Your task to perform on an android device: turn pop-ups on in chrome Image 0: 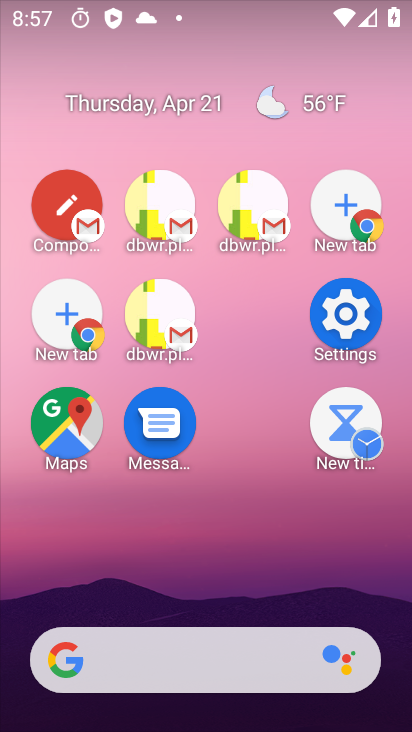
Step 0: drag from (300, 723) to (106, 87)
Your task to perform on an android device: turn pop-ups on in chrome Image 1: 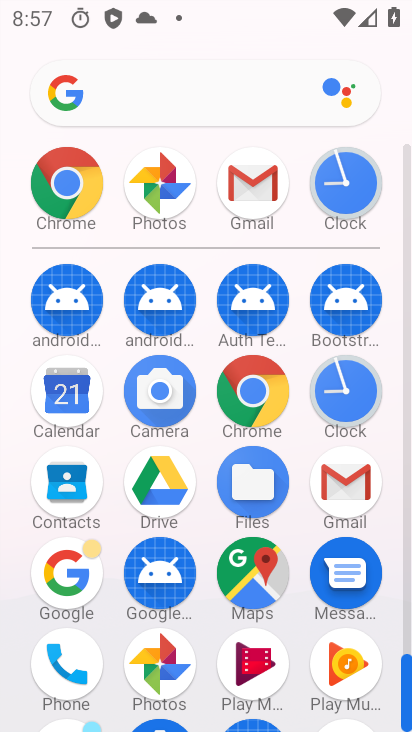
Step 1: click (252, 399)
Your task to perform on an android device: turn pop-ups on in chrome Image 2: 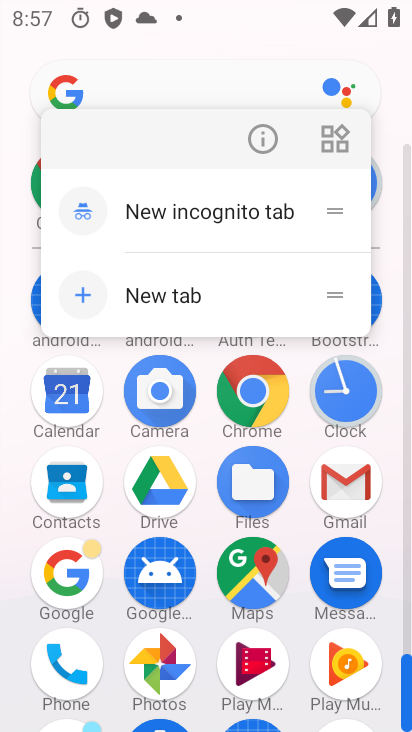
Step 2: click (254, 396)
Your task to perform on an android device: turn pop-ups on in chrome Image 3: 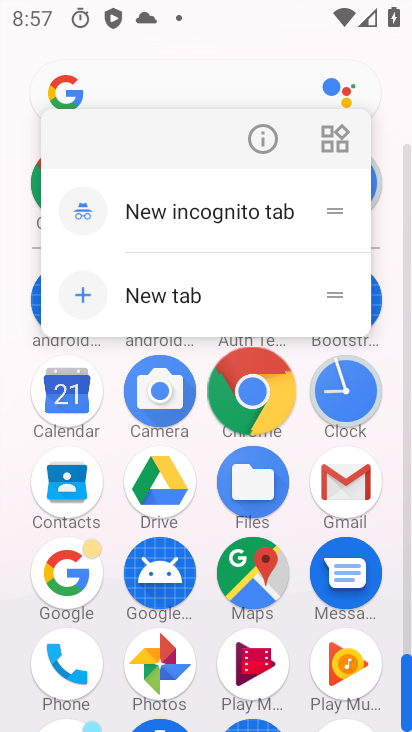
Step 3: click (254, 396)
Your task to perform on an android device: turn pop-ups on in chrome Image 4: 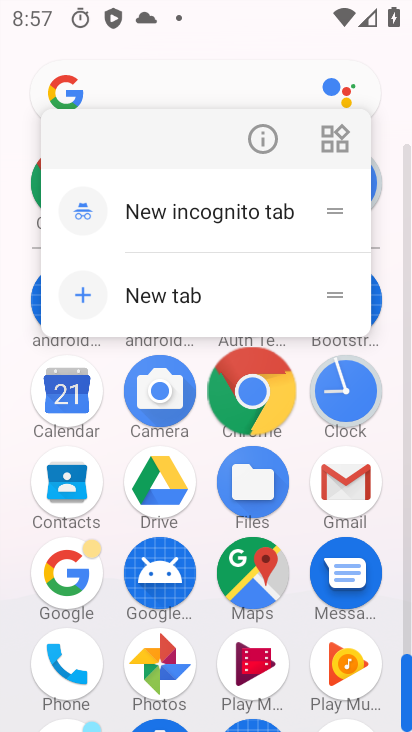
Step 4: click (258, 392)
Your task to perform on an android device: turn pop-ups on in chrome Image 5: 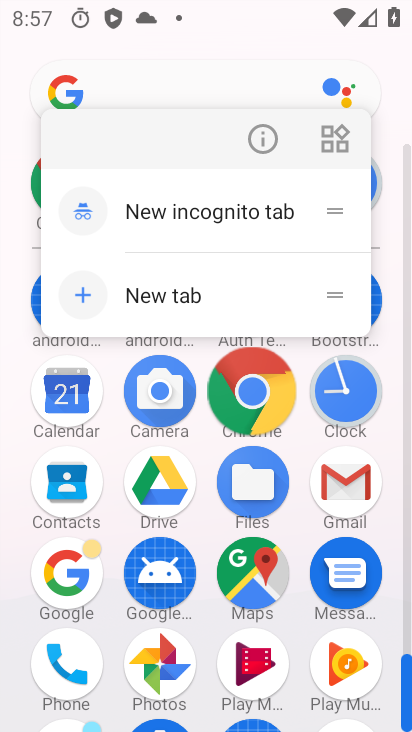
Step 5: click (266, 387)
Your task to perform on an android device: turn pop-ups on in chrome Image 6: 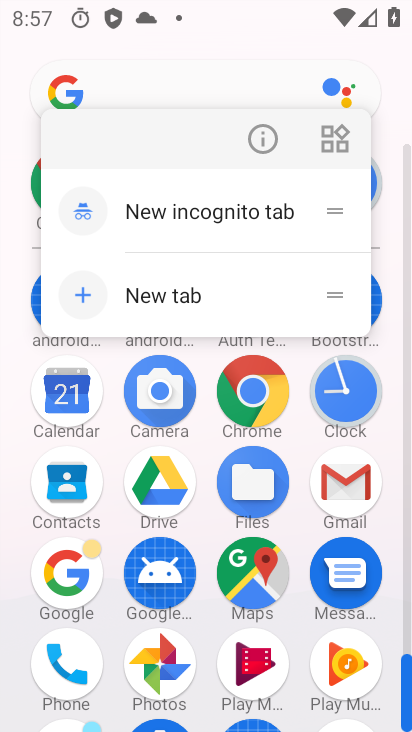
Step 6: click (267, 387)
Your task to perform on an android device: turn pop-ups on in chrome Image 7: 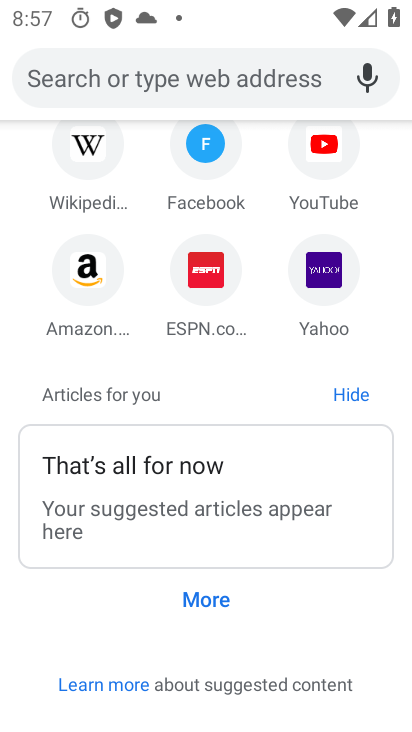
Step 7: drag from (247, 278) to (374, 617)
Your task to perform on an android device: turn pop-ups on in chrome Image 8: 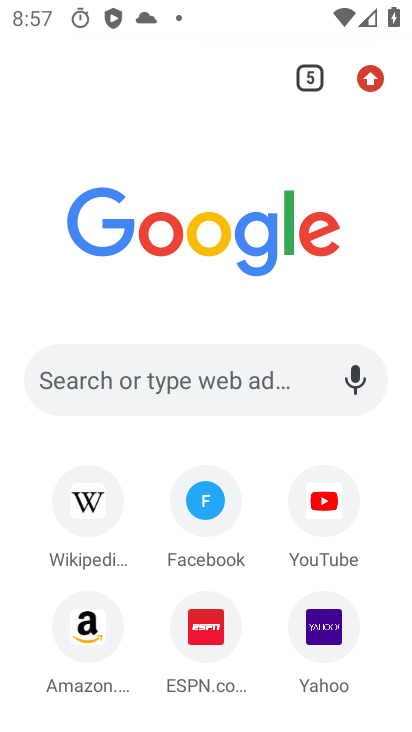
Step 8: drag from (289, 170) to (341, 529)
Your task to perform on an android device: turn pop-ups on in chrome Image 9: 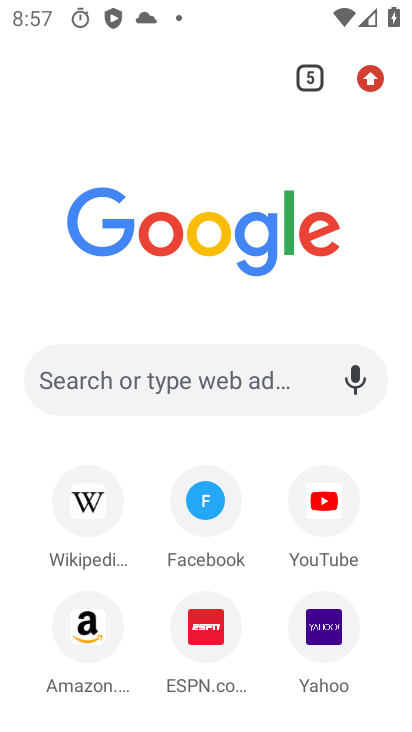
Step 9: drag from (365, 70) to (98, 614)
Your task to perform on an android device: turn pop-ups on in chrome Image 10: 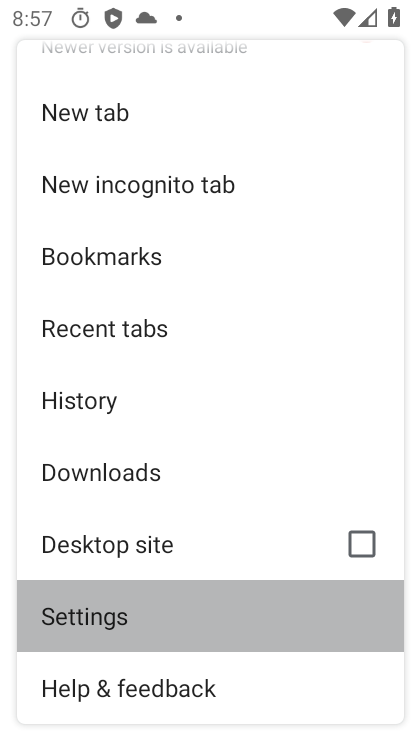
Step 10: click (91, 614)
Your task to perform on an android device: turn pop-ups on in chrome Image 11: 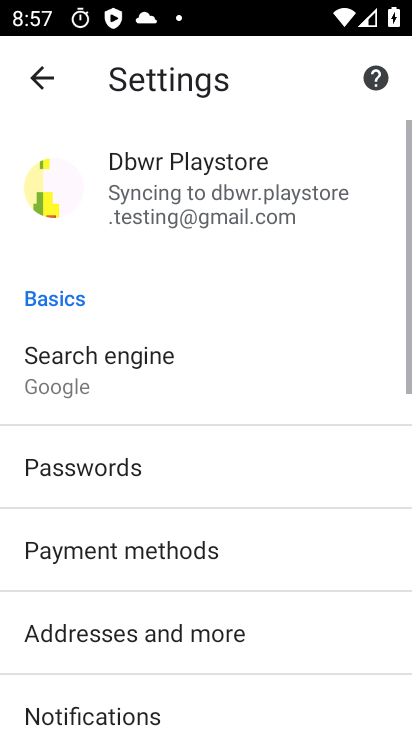
Step 11: drag from (101, 645) to (140, 343)
Your task to perform on an android device: turn pop-ups on in chrome Image 12: 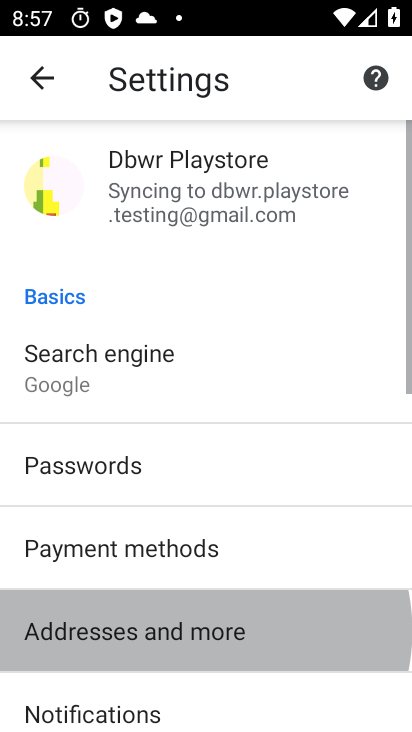
Step 12: drag from (212, 604) to (164, 163)
Your task to perform on an android device: turn pop-ups on in chrome Image 13: 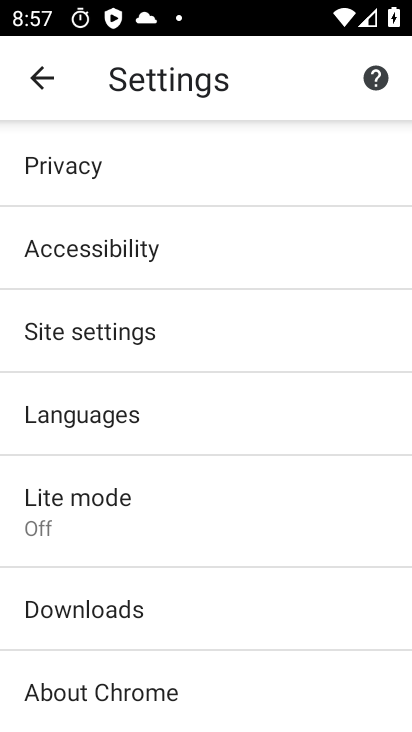
Step 13: click (76, 332)
Your task to perform on an android device: turn pop-ups on in chrome Image 14: 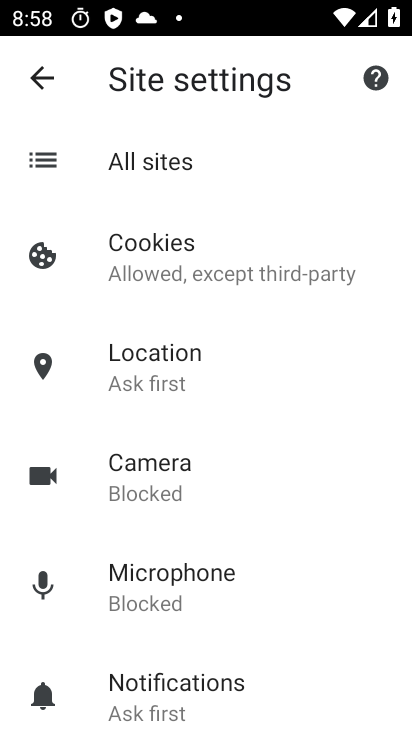
Step 14: drag from (188, 354) to (188, 208)
Your task to perform on an android device: turn pop-ups on in chrome Image 15: 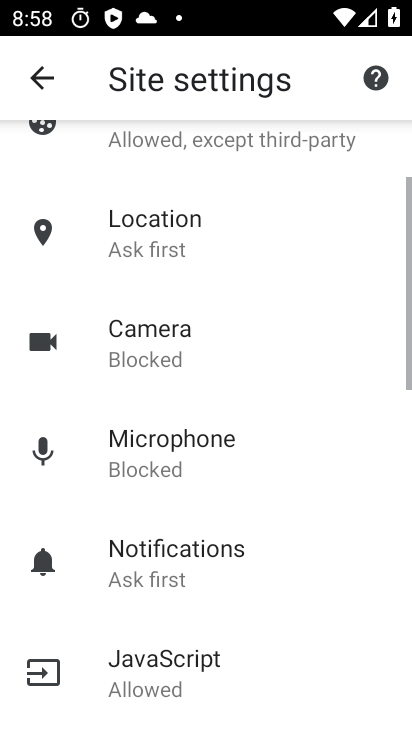
Step 15: drag from (196, 394) to (207, 81)
Your task to perform on an android device: turn pop-ups on in chrome Image 16: 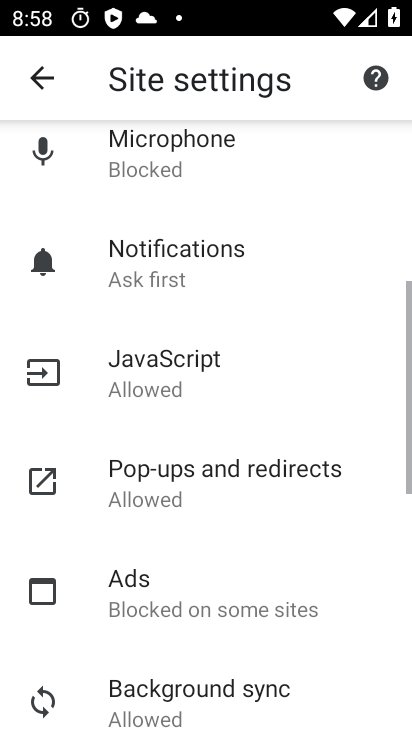
Step 16: drag from (244, 249) to (244, 111)
Your task to perform on an android device: turn pop-ups on in chrome Image 17: 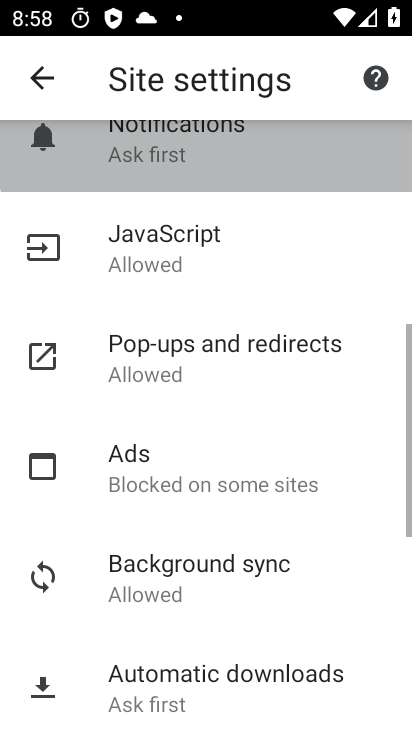
Step 17: drag from (224, 479) to (197, 147)
Your task to perform on an android device: turn pop-ups on in chrome Image 18: 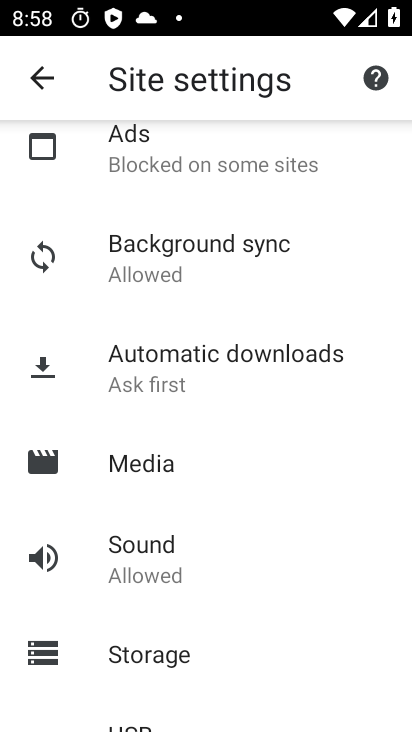
Step 18: drag from (171, 329) to (192, 561)
Your task to perform on an android device: turn pop-ups on in chrome Image 19: 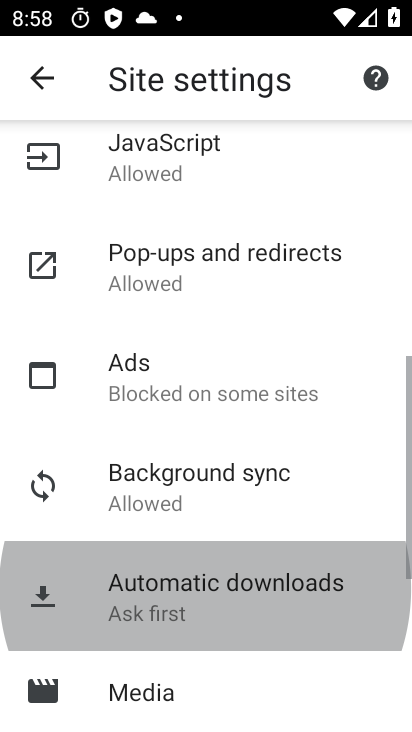
Step 19: drag from (215, 400) to (237, 549)
Your task to perform on an android device: turn pop-ups on in chrome Image 20: 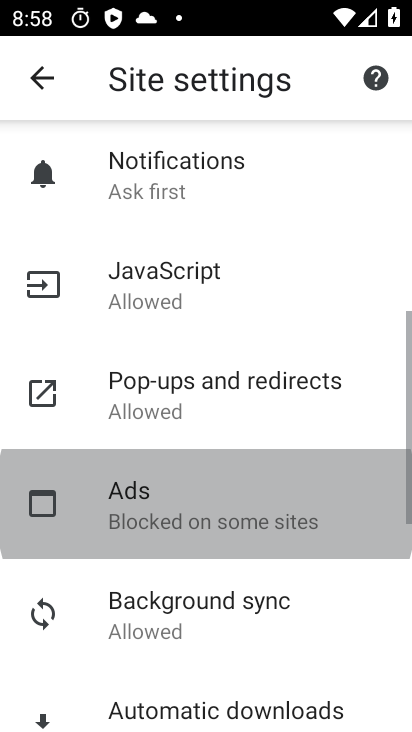
Step 20: drag from (196, 245) to (220, 518)
Your task to perform on an android device: turn pop-ups on in chrome Image 21: 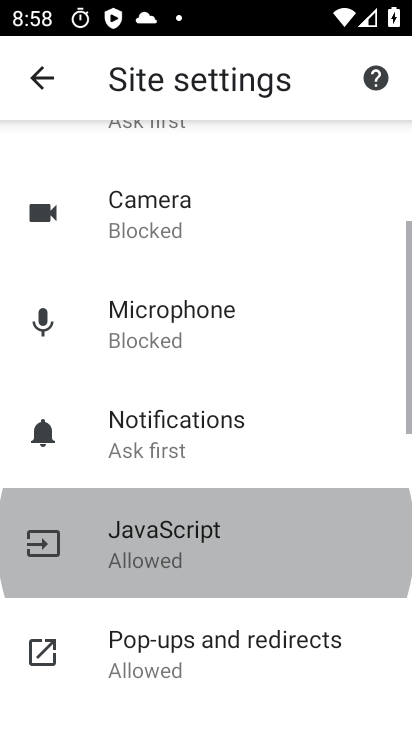
Step 21: drag from (148, 256) to (222, 597)
Your task to perform on an android device: turn pop-ups on in chrome Image 22: 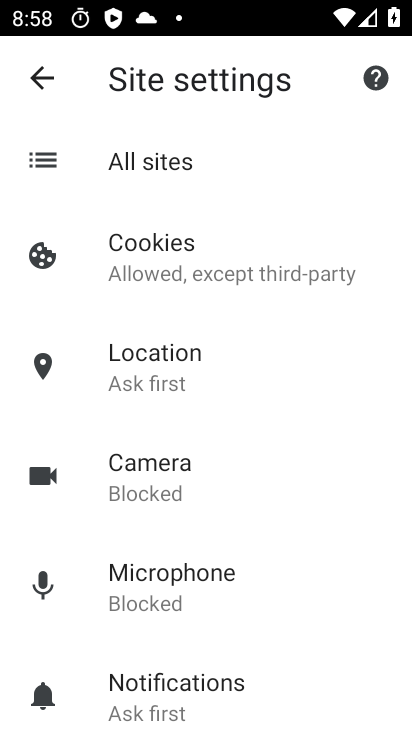
Step 22: drag from (232, 465) to (252, 251)
Your task to perform on an android device: turn pop-ups on in chrome Image 23: 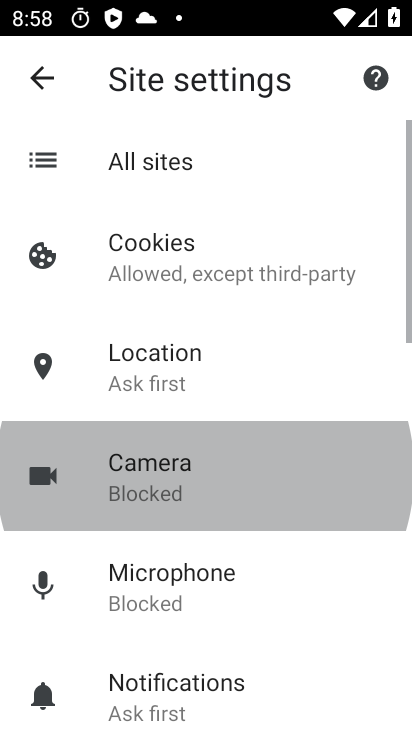
Step 23: drag from (193, 509) to (186, 188)
Your task to perform on an android device: turn pop-ups on in chrome Image 24: 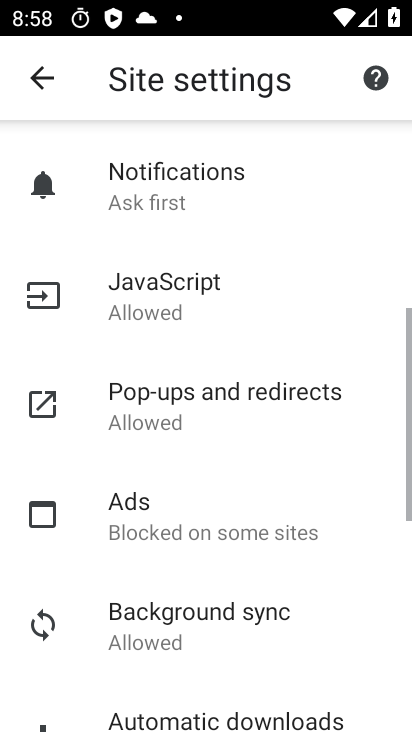
Step 24: drag from (187, 436) to (155, 143)
Your task to perform on an android device: turn pop-ups on in chrome Image 25: 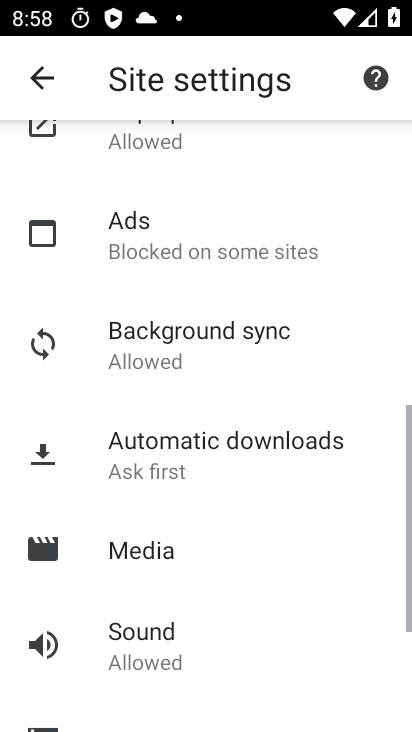
Step 25: click (184, 543)
Your task to perform on an android device: turn pop-ups on in chrome Image 26: 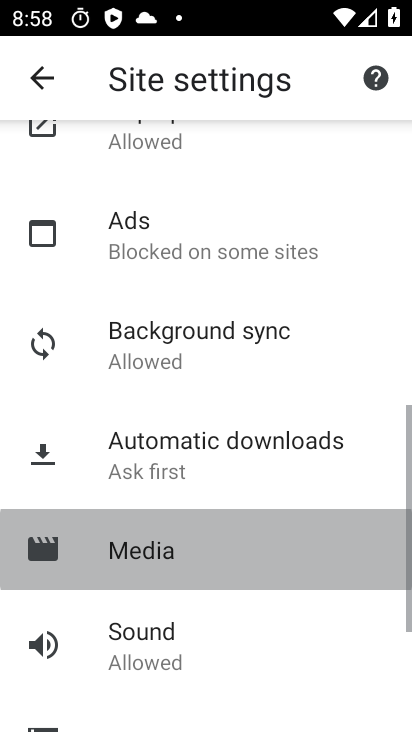
Step 26: click (232, 636)
Your task to perform on an android device: turn pop-ups on in chrome Image 27: 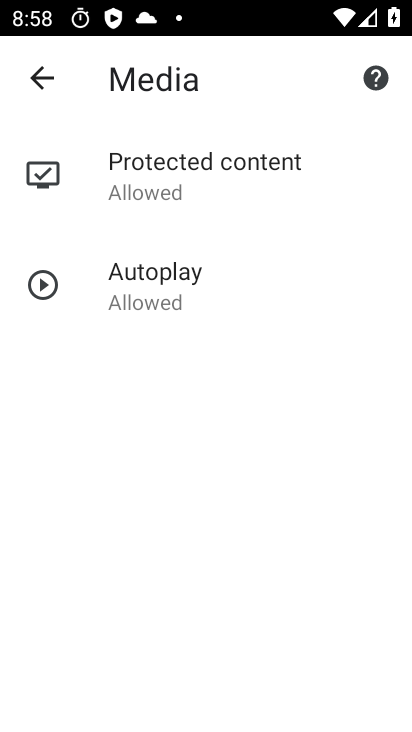
Step 27: click (34, 75)
Your task to perform on an android device: turn pop-ups on in chrome Image 28: 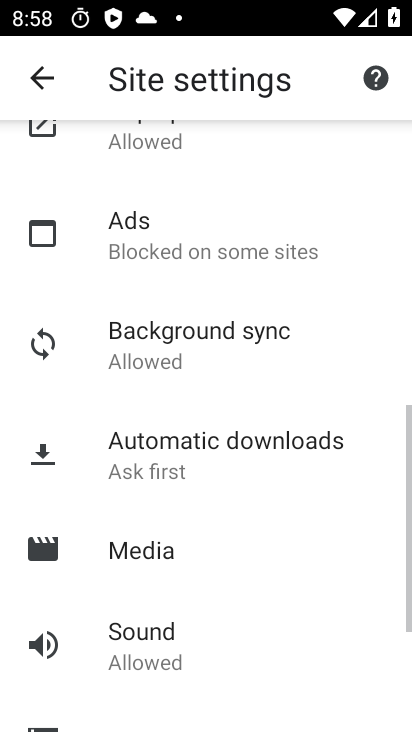
Step 28: click (186, 395)
Your task to perform on an android device: turn pop-ups on in chrome Image 29: 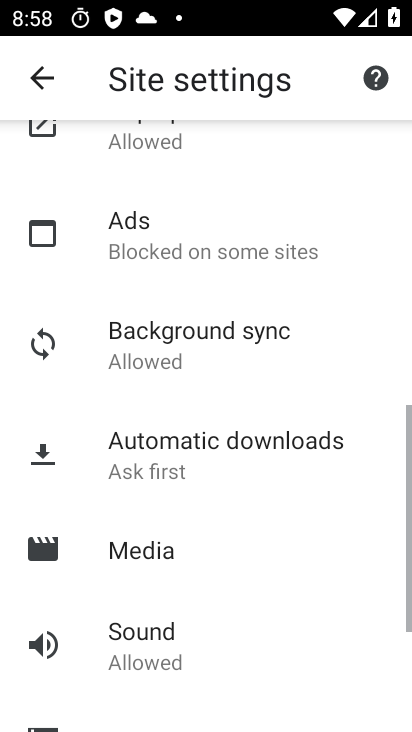
Step 29: drag from (221, 487) to (273, 500)
Your task to perform on an android device: turn pop-ups on in chrome Image 30: 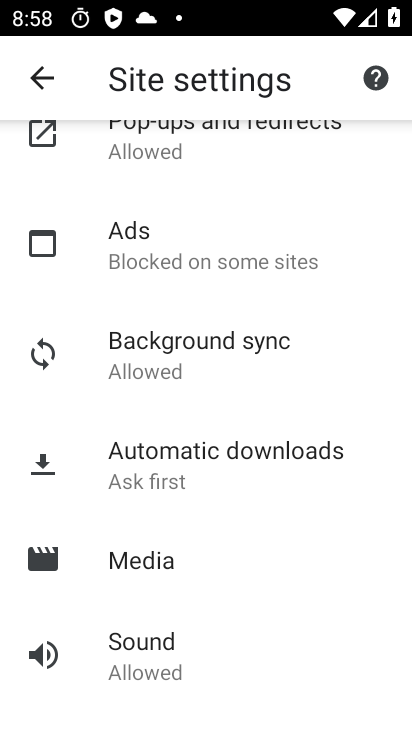
Step 30: drag from (191, 449) to (184, 319)
Your task to perform on an android device: turn pop-ups on in chrome Image 31: 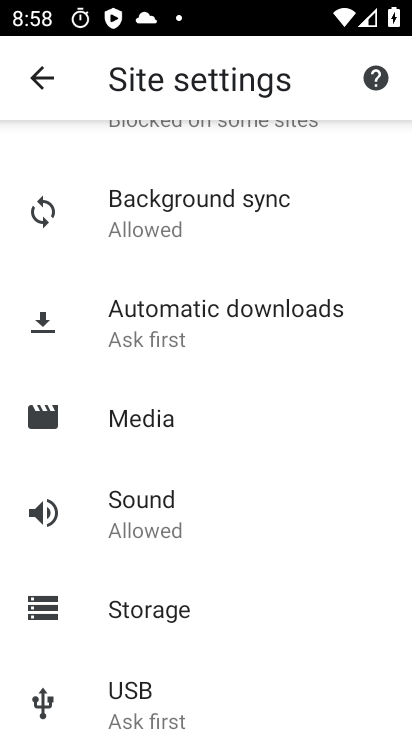
Step 31: drag from (150, 589) to (164, 103)
Your task to perform on an android device: turn pop-ups on in chrome Image 32: 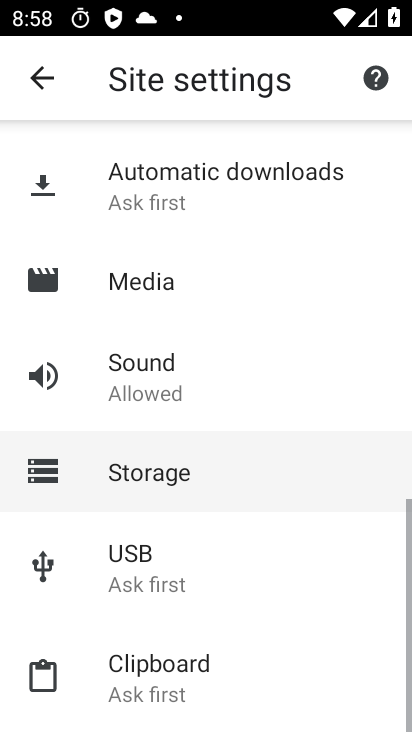
Step 32: drag from (193, 489) to (212, 132)
Your task to perform on an android device: turn pop-ups on in chrome Image 33: 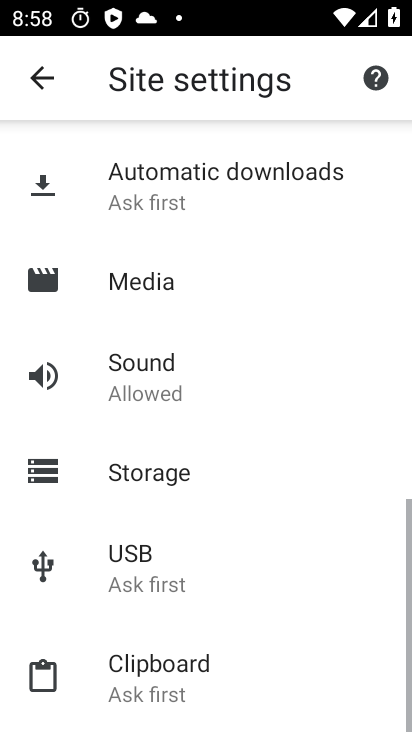
Step 33: drag from (195, 566) to (201, 620)
Your task to perform on an android device: turn pop-ups on in chrome Image 34: 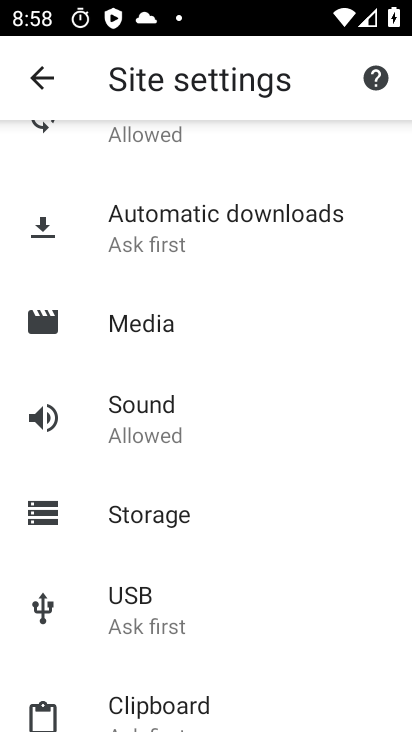
Step 34: drag from (211, 473) to (213, 553)
Your task to perform on an android device: turn pop-ups on in chrome Image 35: 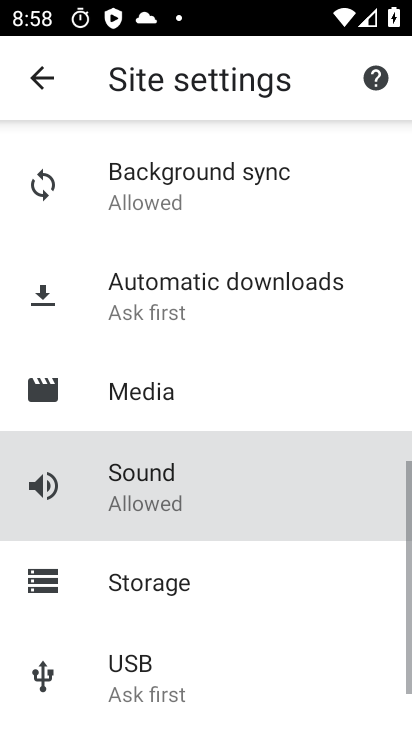
Step 35: drag from (183, 490) to (284, 606)
Your task to perform on an android device: turn pop-ups on in chrome Image 36: 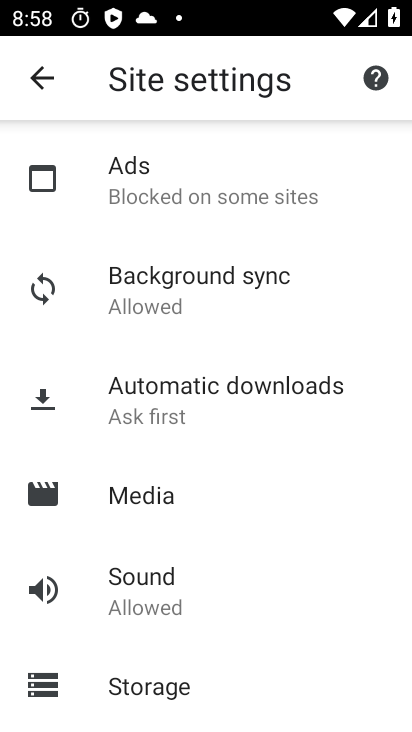
Step 36: drag from (203, 370) to (217, 509)
Your task to perform on an android device: turn pop-ups on in chrome Image 37: 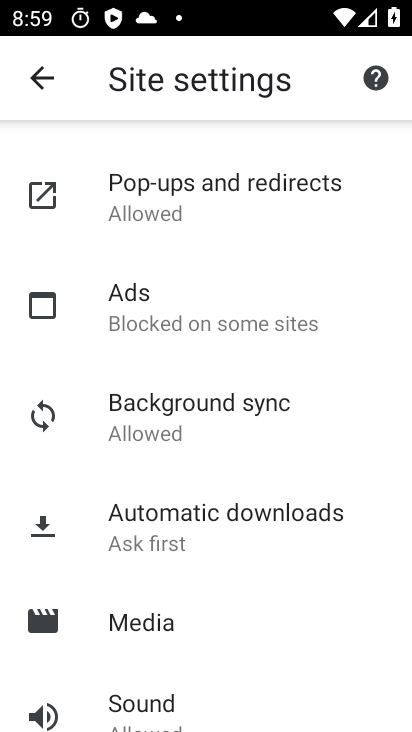
Step 37: click (176, 192)
Your task to perform on an android device: turn pop-ups on in chrome Image 38: 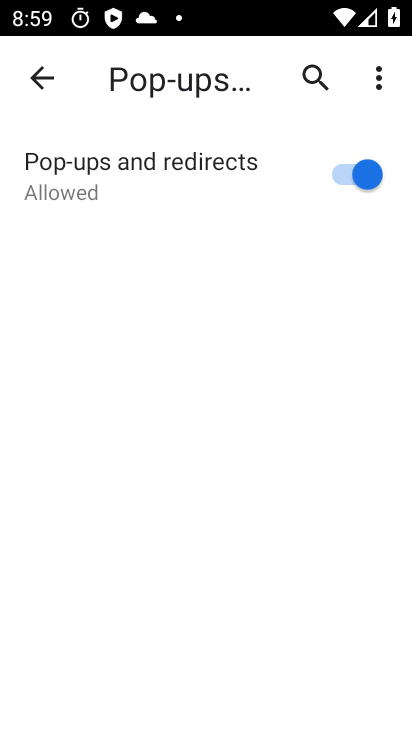
Step 38: click (32, 80)
Your task to perform on an android device: turn pop-ups on in chrome Image 39: 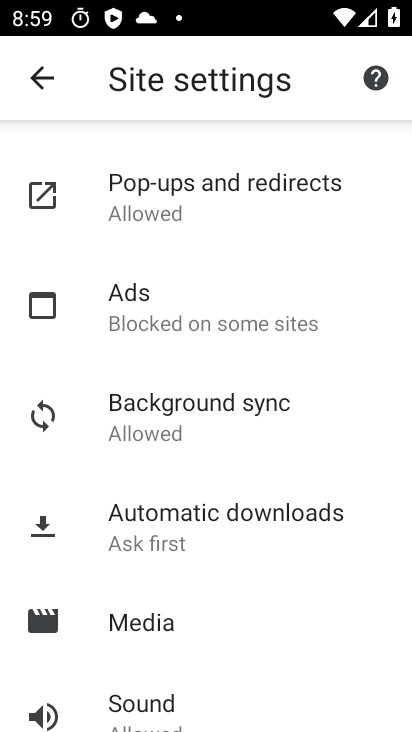
Step 39: click (157, 202)
Your task to perform on an android device: turn pop-ups on in chrome Image 40: 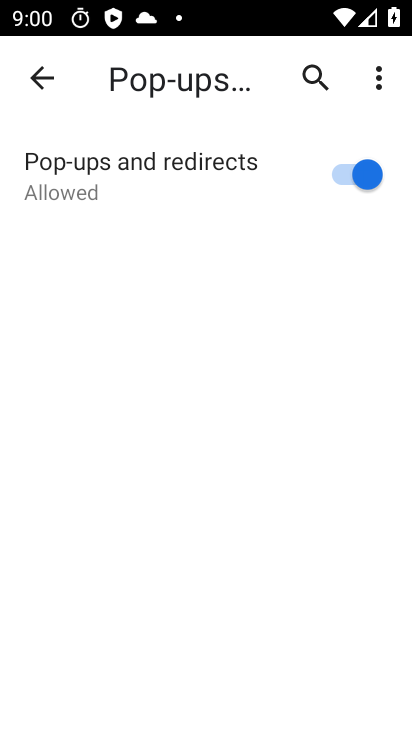
Step 40: task complete